Your task to perform on an android device: check out phone information Image 0: 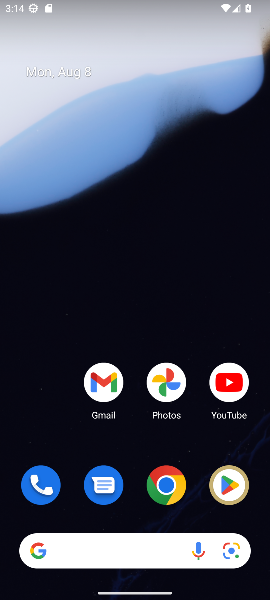
Step 0: drag from (155, 546) to (109, 133)
Your task to perform on an android device: check out phone information Image 1: 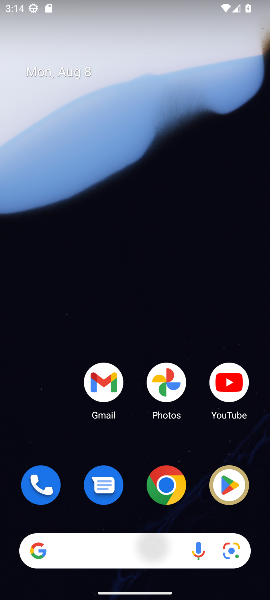
Step 1: drag from (170, 472) to (158, 106)
Your task to perform on an android device: check out phone information Image 2: 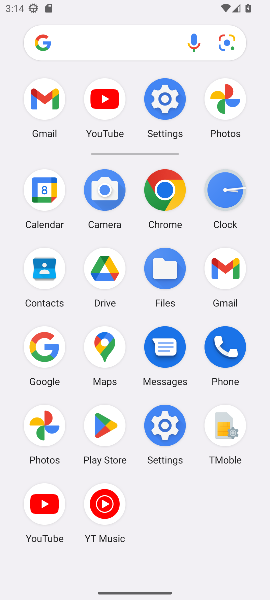
Step 2: click (167, 428)
Your task to perform on an android device: check out phone information Image 3: 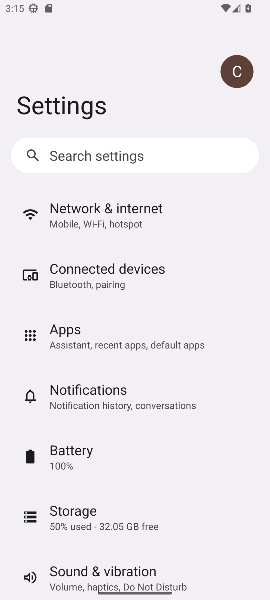
Step 3: drag from (143, 518) to (102, 244)
Your task to perform on an android device: check out phone information Image 4: 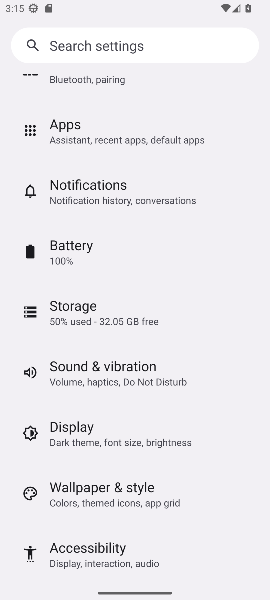
Step 4: drag from (164, 501) to (120, 255)
Your task to perform on an android device: check out phone information Image 5: 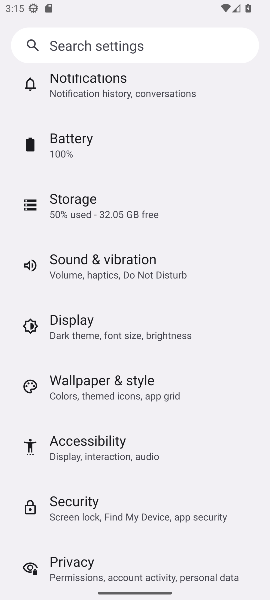
Step 5: drag from (151, 446) to (163, 3)
Your task to perform on an android device: check out phone information Image 6: 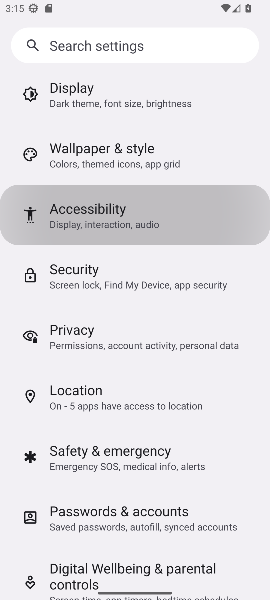
Step 6: drag from (193, 362) to (190, 49)
Your task to perform on an android device: check out phone information Image 7: 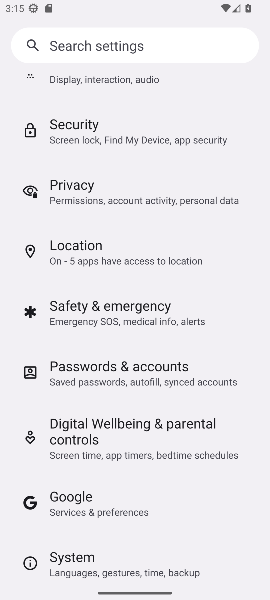
Step 7: drag from (139, 514) to (96, 150)
Your task to perform on an android device: check out phone information Image 8: 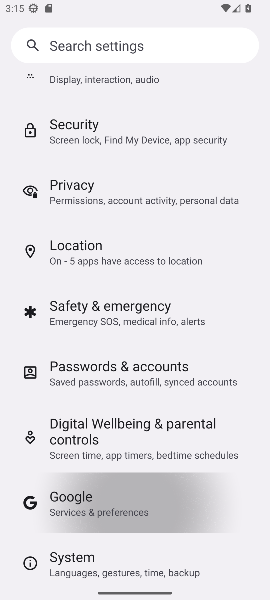
Step 8: drag from (94, 522) to (44, 81)
Your task to perform on an android device: check out phone information Image 9: 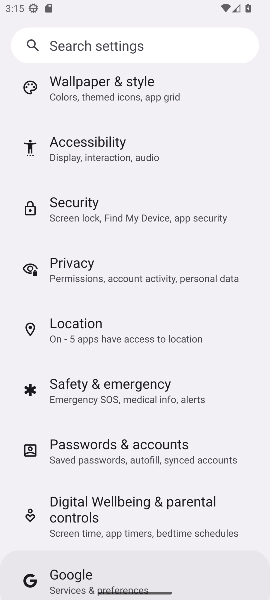
Step 9: drag from (204, 432) to (156, 26)
Your task to perform on an android device: check out phone information Image 10: 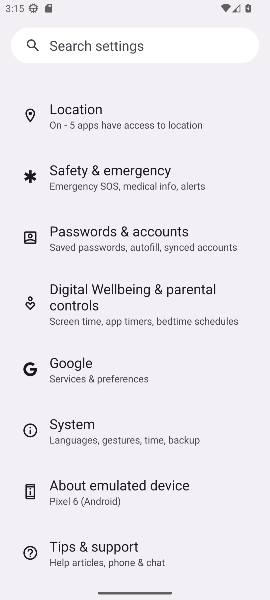
Step 10: drag from (135, 392) to (108, 58)
Your task to perform on an android device: check out phone information Image 11: 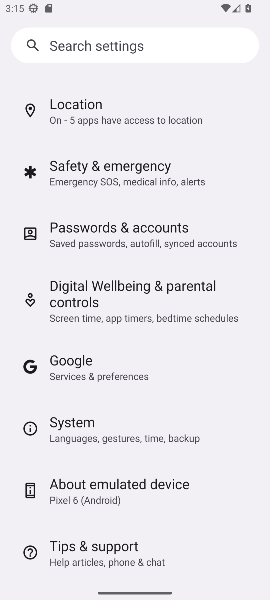
Step 11: drag from (183, 504) to (113, 10)
Your task to perform on an android device: check out phone information Image 12: 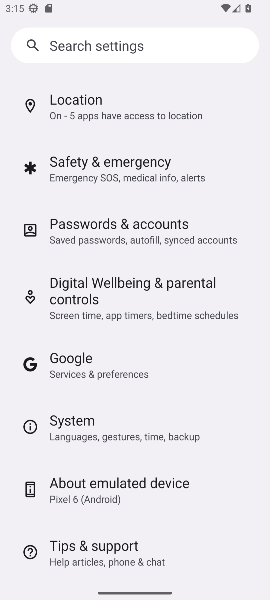
Step 12: drag from (114, 423) to (56, 228)
Your task to perform on an android device: check out phone information Image 13: 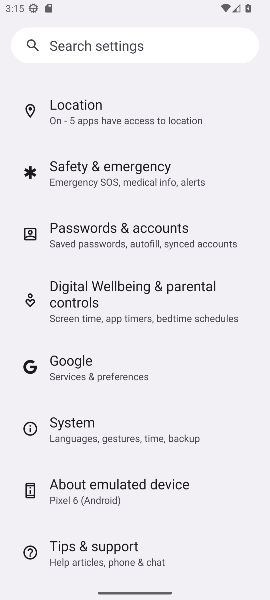
Step 13: drag from (108, 500) to (87, 159)
Your task to perform on an android device: check out phone information Image 14: 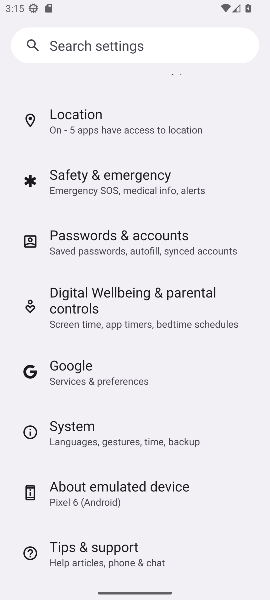
Step 14: drag from (154, 474) to (82, 116)
Your task to perform on an android device: check out phone information Image 15: 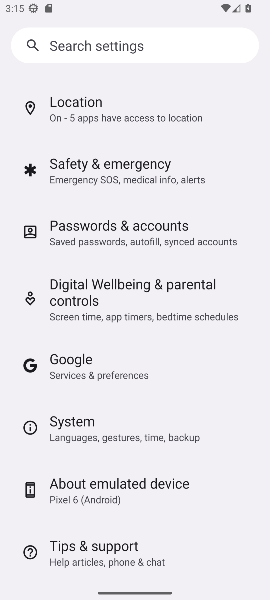
Step 15: drag from (164, 500) to (163, 134)
Your task to perform on an android device: check out phone information Image 16: 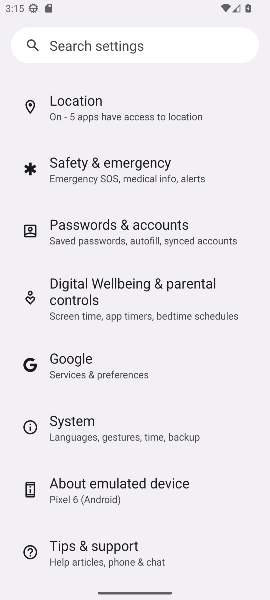
Step 16: drag from (160, 486) to (123, 162)
Your task to perform on an android device: check out phone information Image 17: 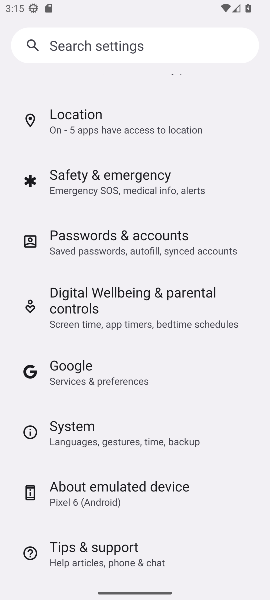
Step 17: drag from (89, 578) to (91, 176)
Your task to perform on an android device: check out phone information Image 18: 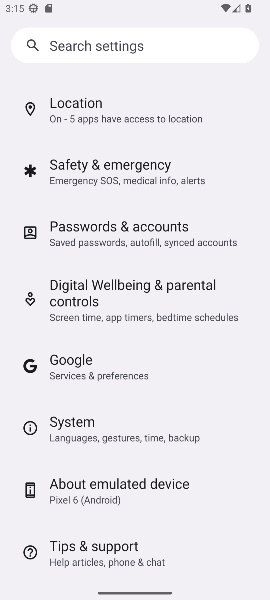
Step 18: drag from (149, 451) to (117, 116)
Your task to perform on an android device: check out phone information Image 19: 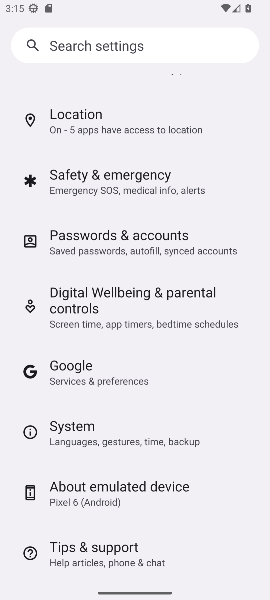
Step 19: drag from (97, 457) to (117, 152)
Your task to perform on an android device: check out phone information Image 20: 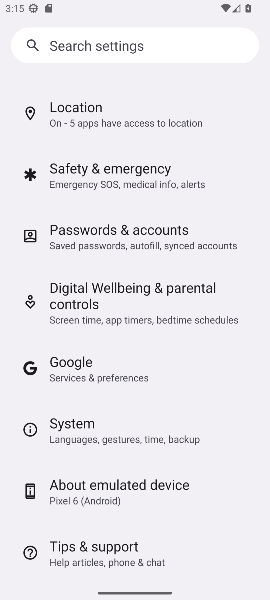
Step 20: drag from (110, 548) to (66, 121)
Your task to perform on an android device: check out phone information Image 21: 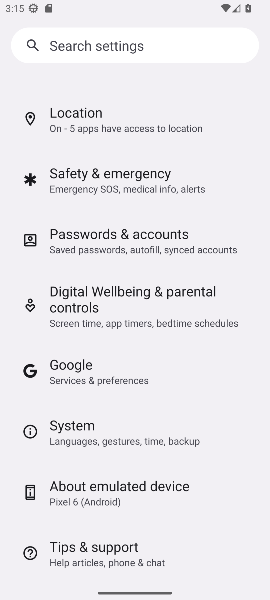
Step 21: click (86, 486)
Your task to perform on an android device: check out phone information Image 22: 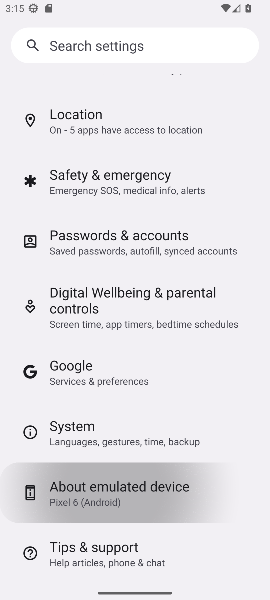
Step 22: click (89, 485)
Your task to perform on an android device: check out phone information Image 23: 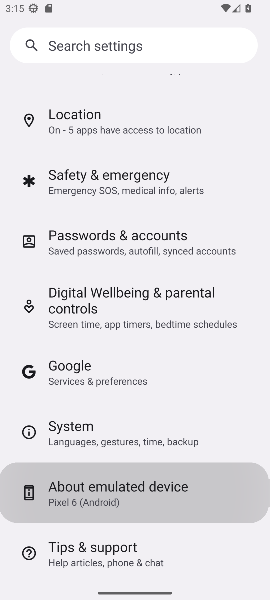
Step 23: click (93, 497)
Your task to perform on an android device: check out phone information Image 24: 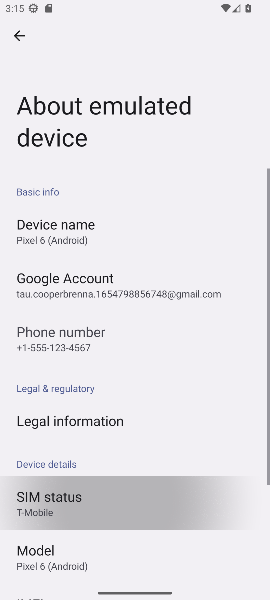
Step 24: click (92, 496)
Your task to perform on an android device: check out phone information Image 25: 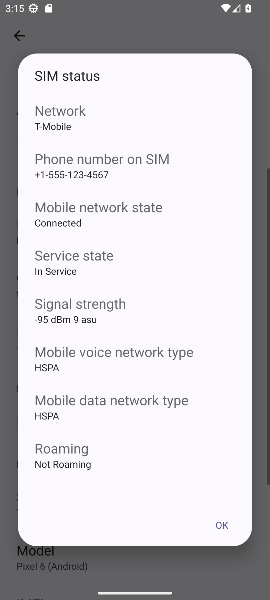
Step 25: click (124, 17)
Your task to perform on an android device: check out phone information Image 26: 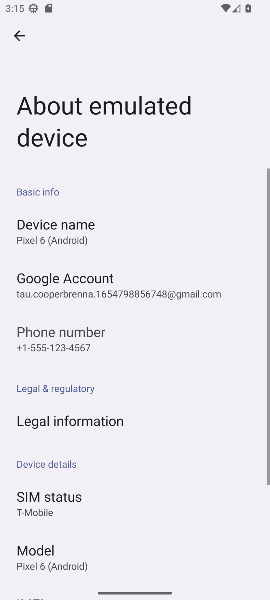
Step 26: drag from (117, 361) to (157, 34)
Your task to perform on an android device: check out phone information Image 27: 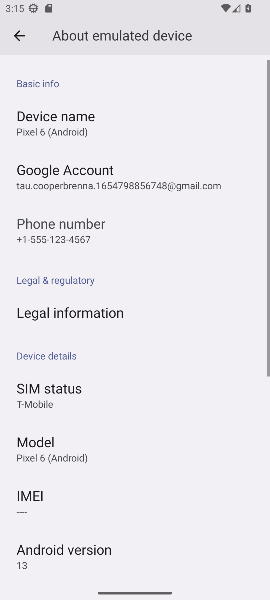
Step 27: click (131, 23)
Your task to perform on an android device: check out phone information Image 28: 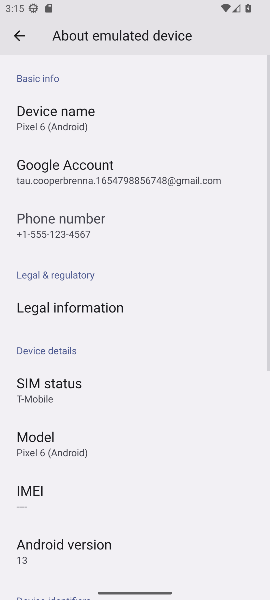
Step 28: task complete